Your task to perform on an android device: Open Amazon Image 0: 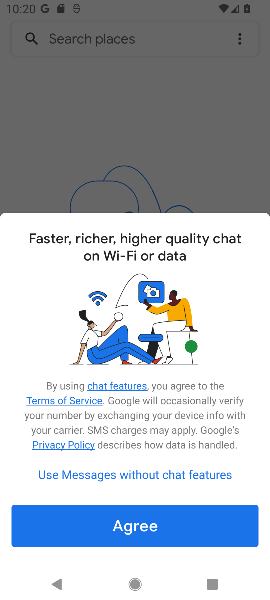
Step 0: press back button
Your task to perform on an android device: Open Amazon Image 1: 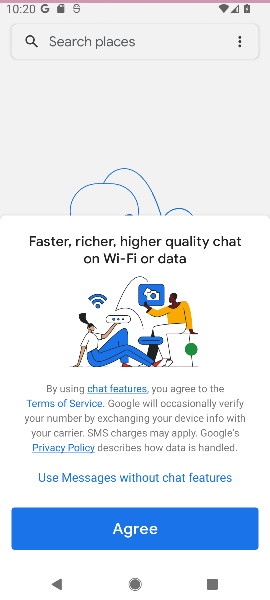
Step 1: click (142, 112)
Your task to perform on an android device: Open Amazon Image 2: 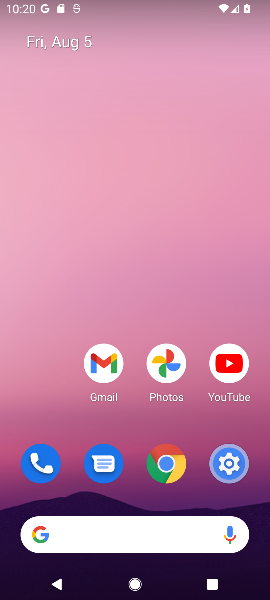
Step 2: drag from (163, 433) to (144, 105)
Your task to perform on an android device: Open Amazon Image 3: 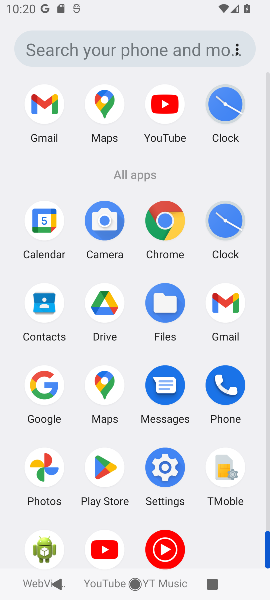
Step 3: click (118, 36)
Your task to perform on an android device: Open Amazon Image 4: 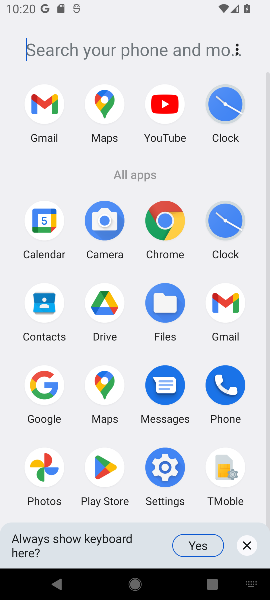
Step 4: click (164, 232)
Your task to perform on an android device: Open Amazon Image 5: 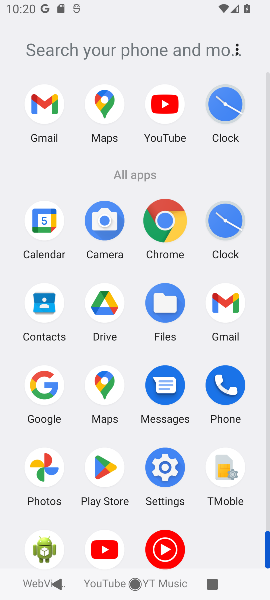
Step 5: click (164, 232)
Your task to perform on an android device: Open Amazon Image 6: 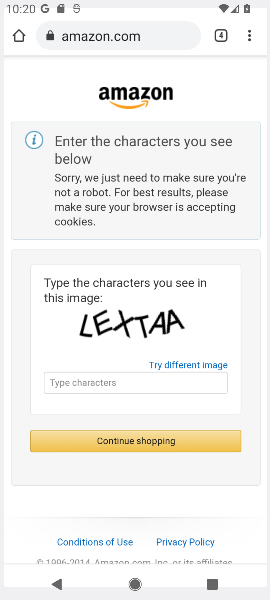
Step 6: click (166, 232)
Your task to perform on an android device: Open Amazon Image 7: 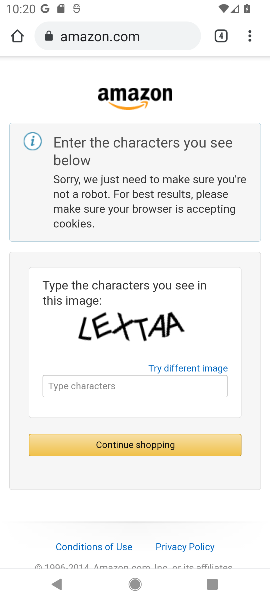
Step 7: task complete